Your task to perform on an android device: turn on improve location accuracy Image 0: 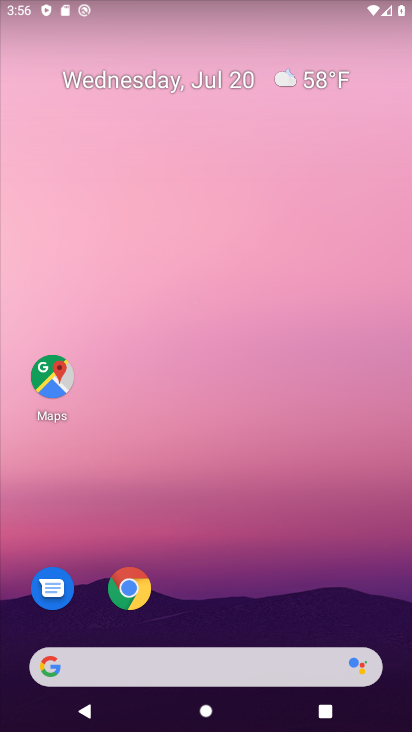
Step 0: drag from (192, 644) to (192, 144)
Your task to perform on an android device: turn on improve location accuracy Image 1: 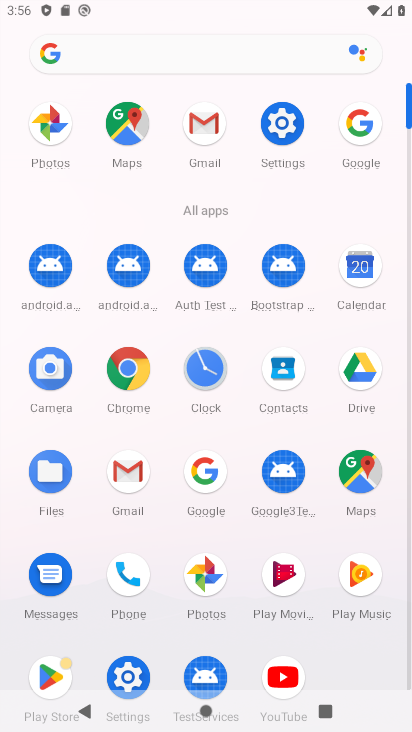
Step 1: click (271, 121)
Your task to perform on an android device: turn on improve location accuracy Image 2: 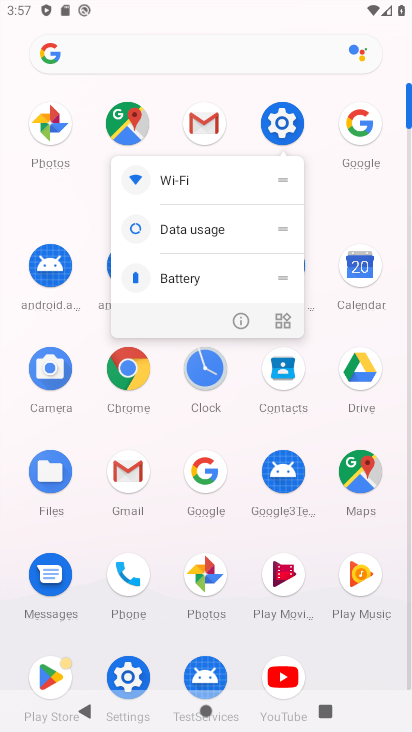
Step 2: click (284, 125)
Your task to perform on an android device: turn on improve location accuracy Image 3: 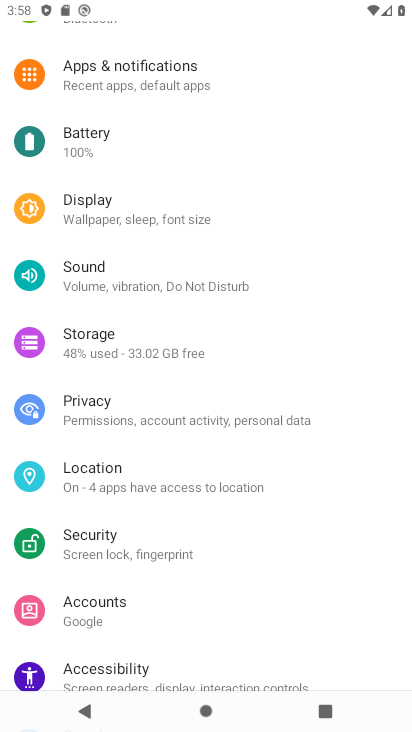
Step 3: click (74, 482)
Your task to perform on an android device: turn on improve location accuracy Image 4: 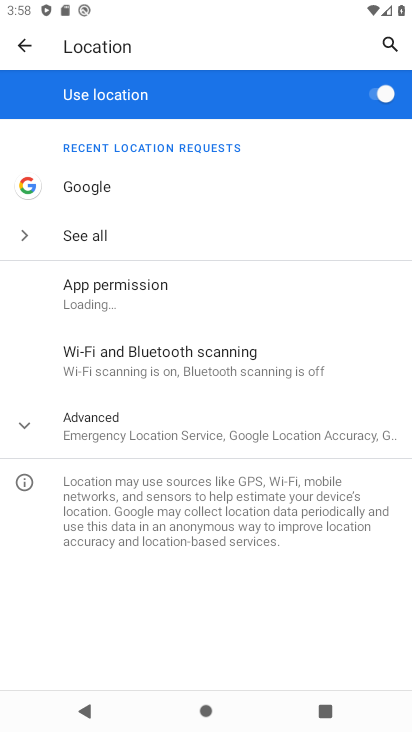
Step 4: click (105, 417)
Your task to perform on an android device: turn on improve location accuracy Image 5: 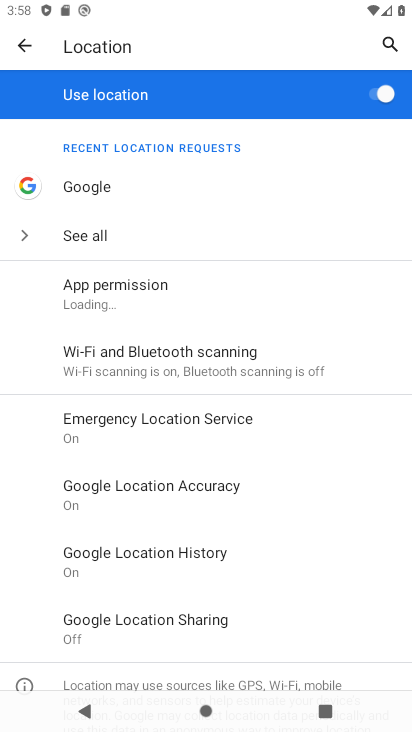
Step 5: click (133, 484)
Your task to perform on an android device: turn on improve location accuracy Image 6: 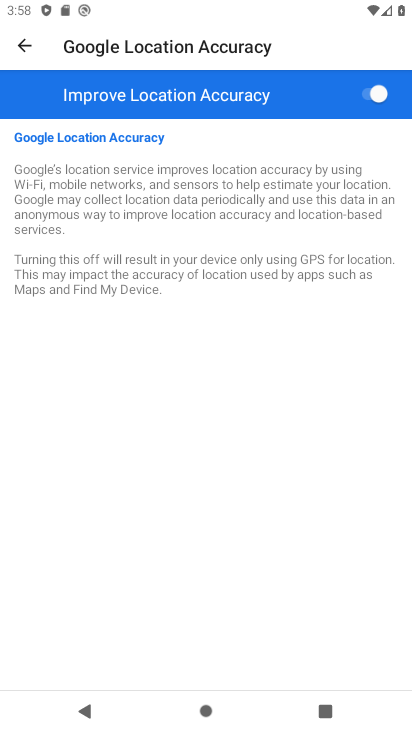
Step 6: task complete